Your task to perform on an android device: toggle notification dots Image 0: 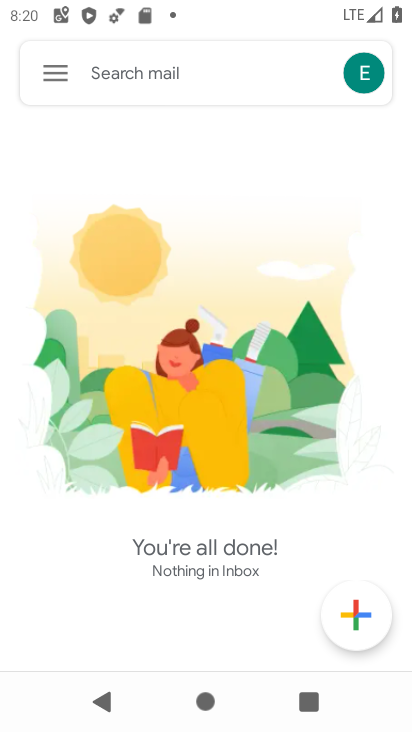
Step 0: press home button
Your task to perform on an android device: toggle notification dots Image 1: 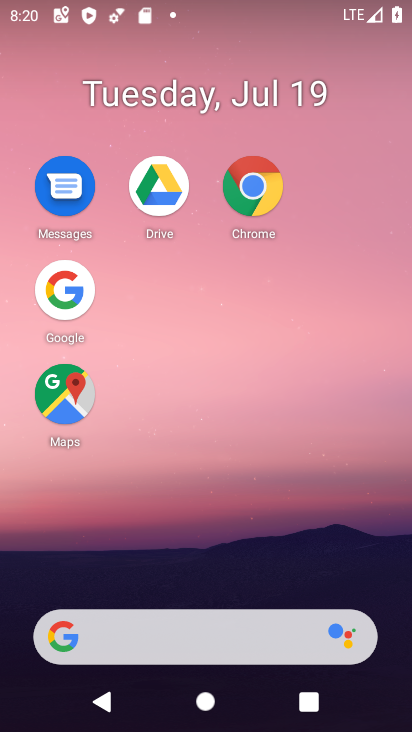
Step 1: drag from (207, 595) to (262, 7)
Your task to perform on an android device: toggle notification dots Image 2: 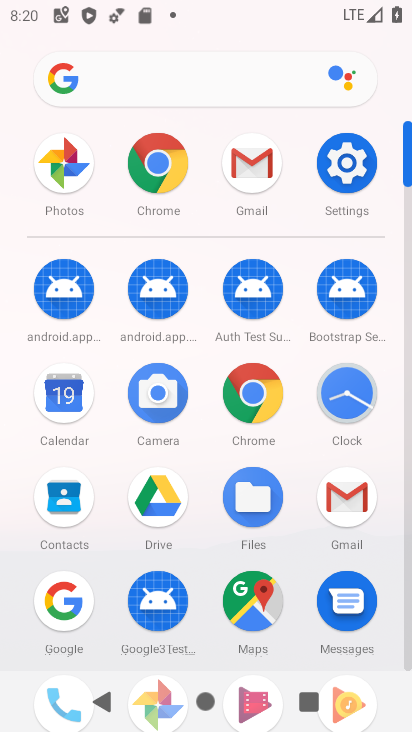
Step 2: click (344, 150)
Your task to perform on an android device: toggle notification dots Image 3: 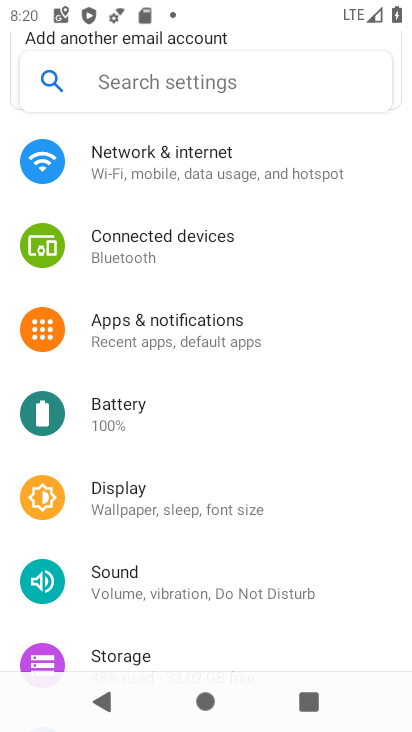
Step 3: click (129, 334)
Your task to perform on an android device: toggle notification dots Image 4: 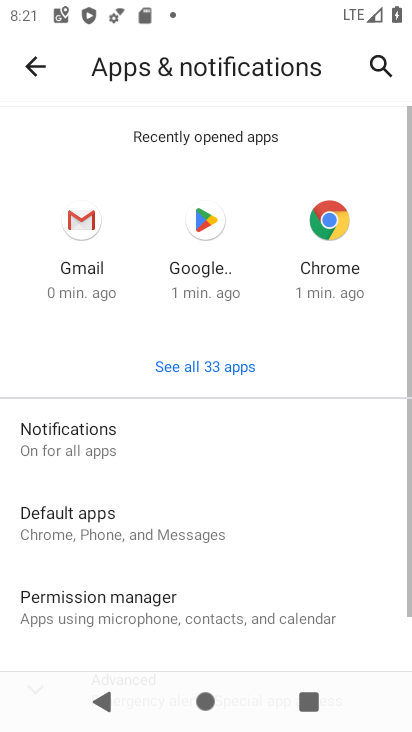
Step 4: click (93, 423)
Your task to perform on an android device: toggle notification dots Image 5: 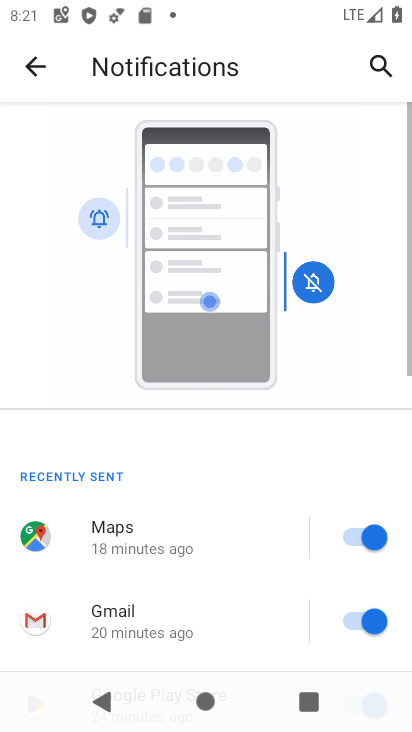
Step 5: drag from (140, 596) to (131, 91)
Your task to perform on an android device: toggle notification dots Image 6: 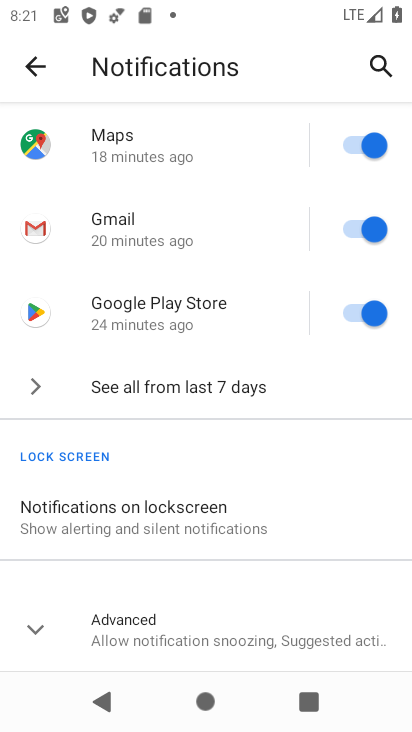
Step 6: click (175, 624)
Your task to perform on an android device: toggle notification dots Image 7: 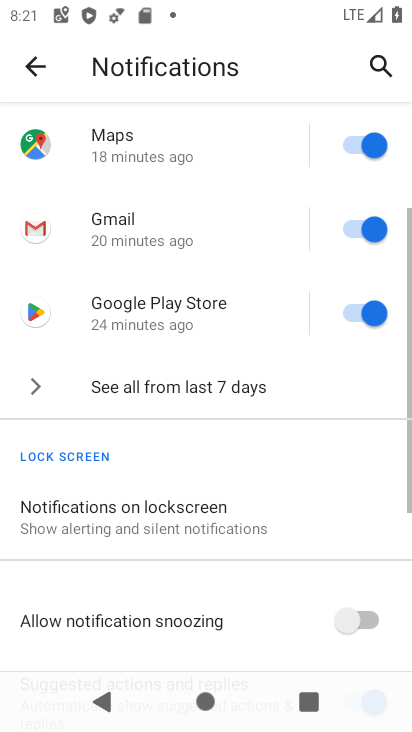
Step 7: drag from (175, 624) to (169, 190)
Your task to perform on an android device: toggle notification dots Image 8: 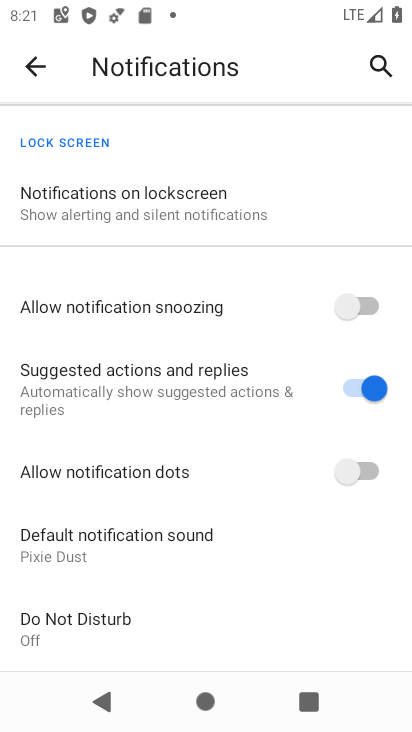
Step 8: click (362, 470)
Your task to perform on an android device: toggle notification dots Image 9: 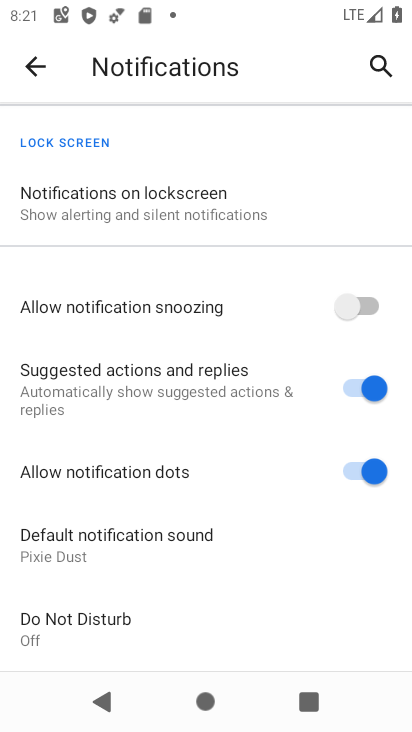
Step 9: task complete